Your task to perform on an android device: Open sound settings Image 0: 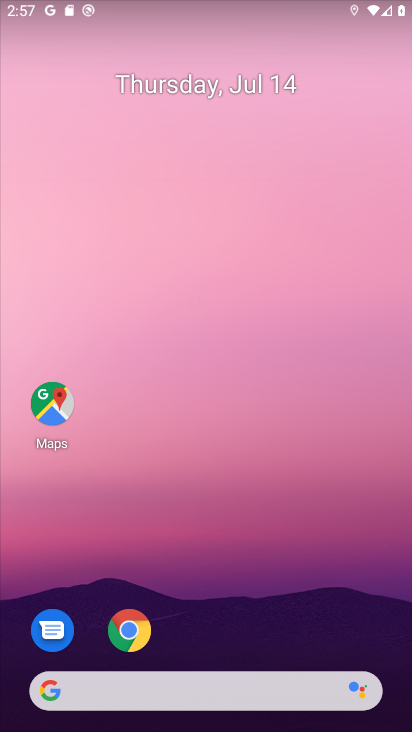
Step 0: drag from (255, 375) to (207, 111)
Your task to perform on an android device: Open sound settings Image 1: 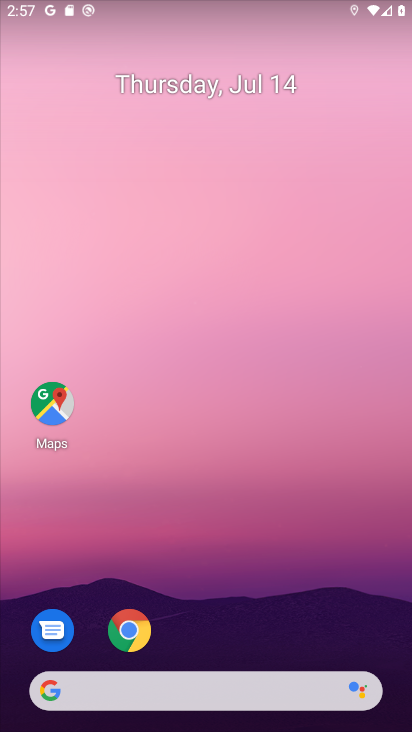
Step 1: drag from (247, 634) to (221, 100)
Your task to perform on an android device: Open sound settings Image 2: 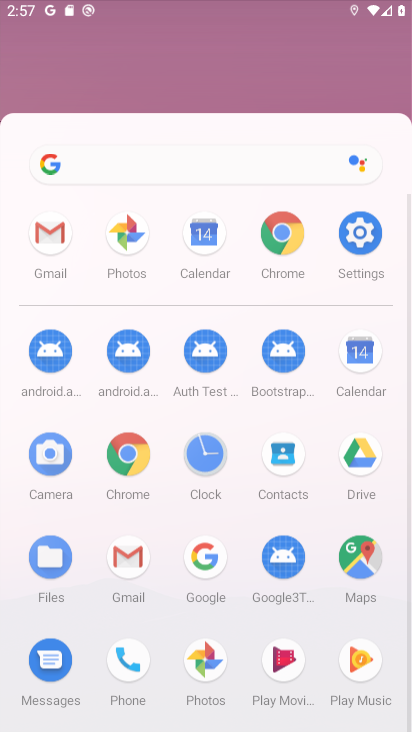
Step 2: drag from (244, 531) to (315, 89)
Your task to perform on an android device: Open sound settings Image 3: 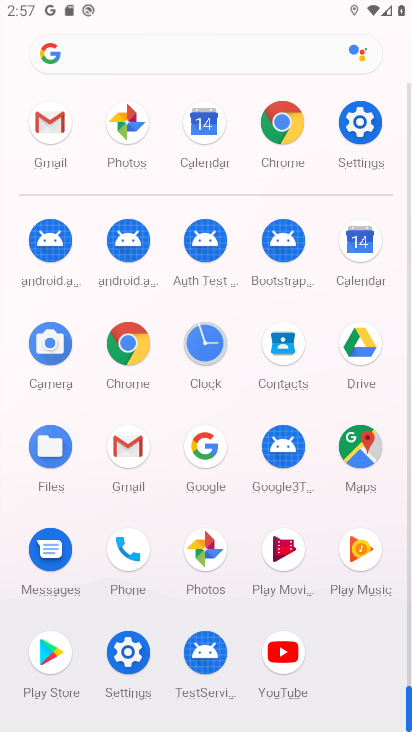
Step 3: drag from (275, 549) to (244, 284)
Your task to perform on an android device: Open sound settings Image 4: 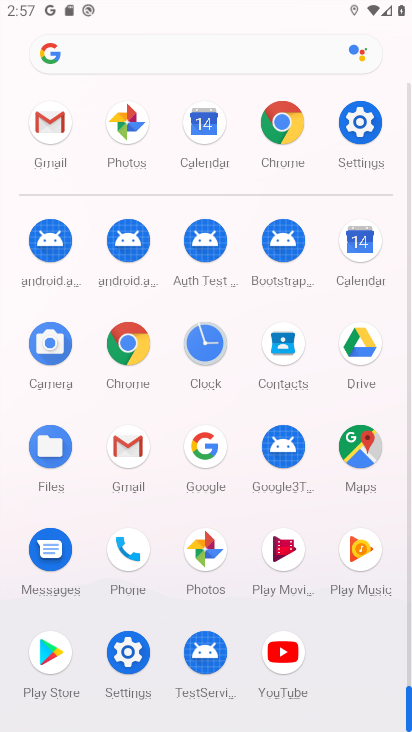
Step 4: click (368, 133)
Your task to perform on an android device: Open sound settings Image 5: 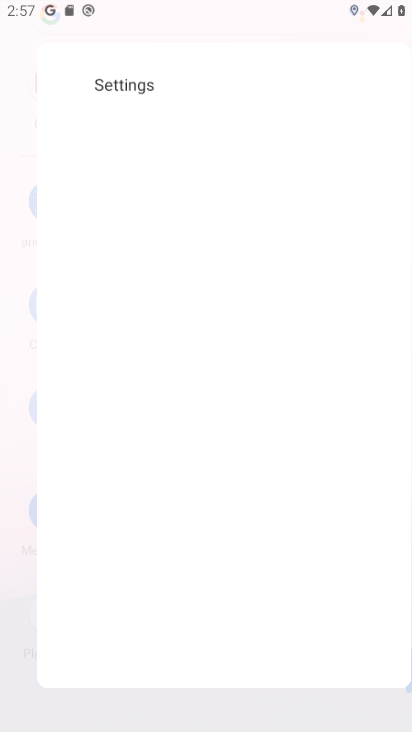
Step 5: click (364, 119)
Your task to perform on an android device: Open sound settings Image 6: 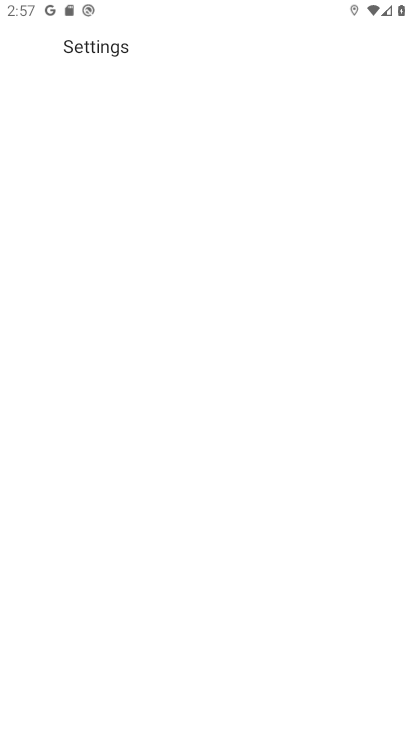
Step 6: click (367, 123)
Your task to perform on an android device: Open sound settings Image 7: 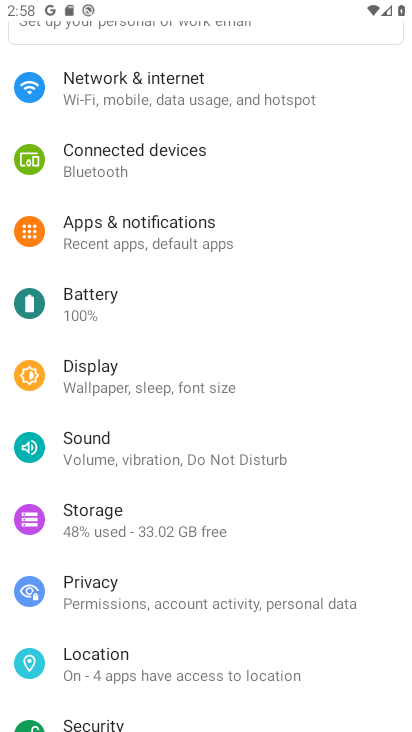
Step 7: click (66, 464)
Your task to perform on an android device: Open sound settings Image 8: 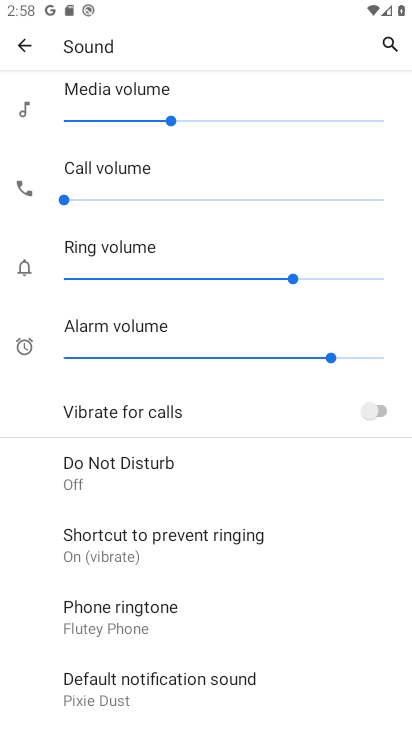
Step 8: task complete